Your task to perform on an android device: Is it going to rain tomorrow? Image 0: 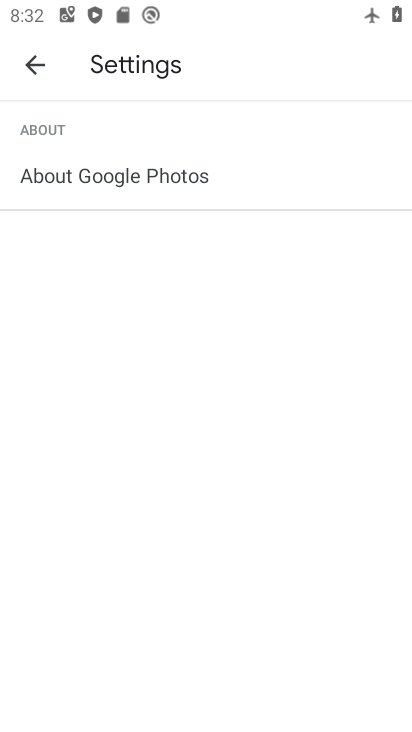
Step 0: press home button
Your task to perform on an android device: Is it going to rain tomorrow? Image 1: 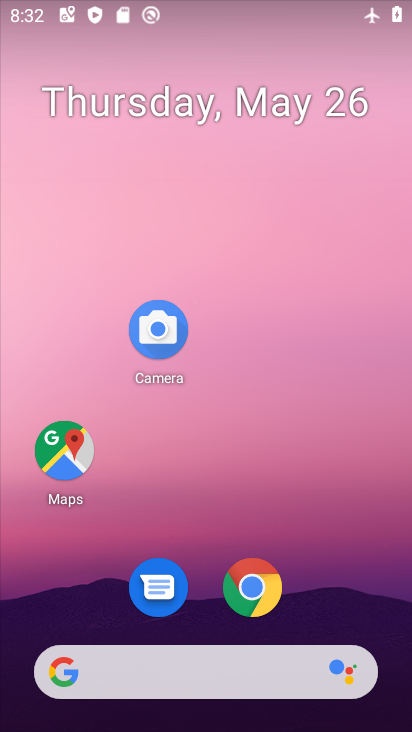
Step 1: drag from (209, 615) to (187, 200)
Your task to perform on an android device: Is it going to rain tomorrow? Image 2: 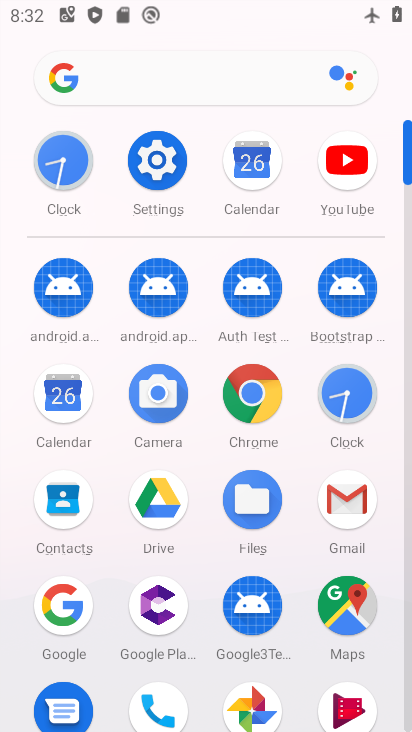
Step 2: click (51, 627)
Your task to perform on an android device: Is it going to rain tomorrow? Image 3: 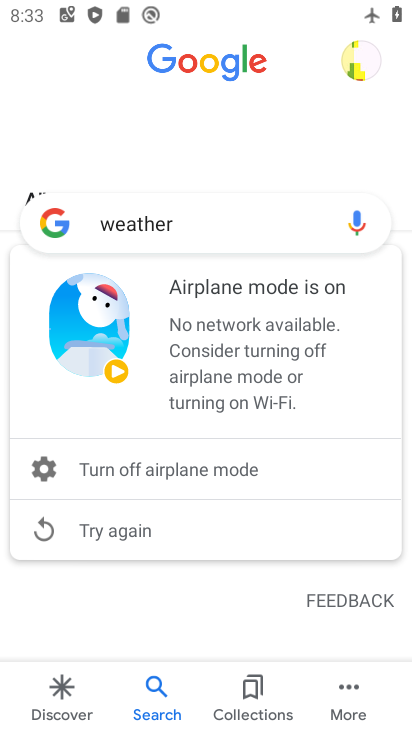
Step 3: task complete